Your task to perform on an android device: Open the map Image 0: 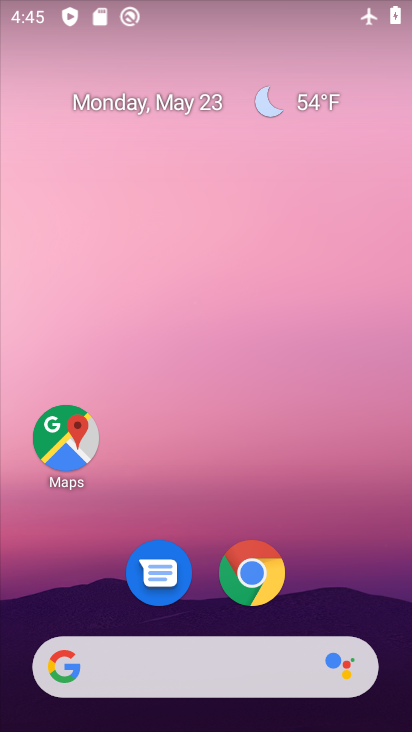
Step 0: drag from (217, 645) to (198, 132)
Your task to perform on an android device: Open the map Image 1: 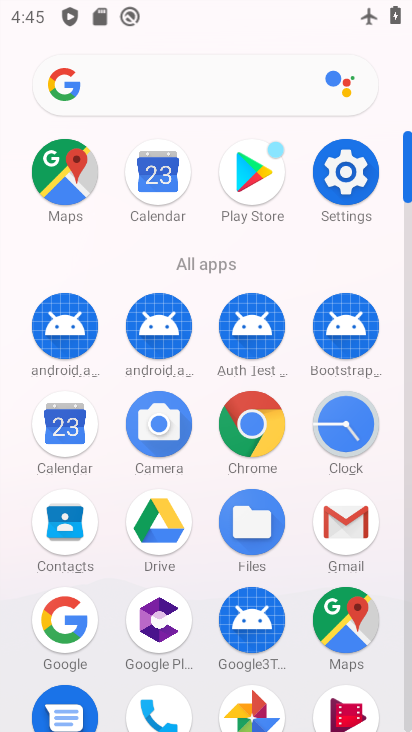
Step 1: click (347, 629)
Your task to perform on an android device: Open the map Image 2: 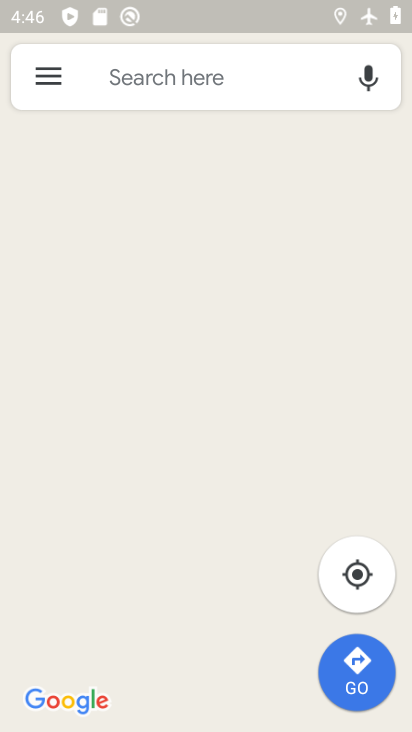
Step 2: task complete